Your task to perform on an android device: Open eBay Image 0: 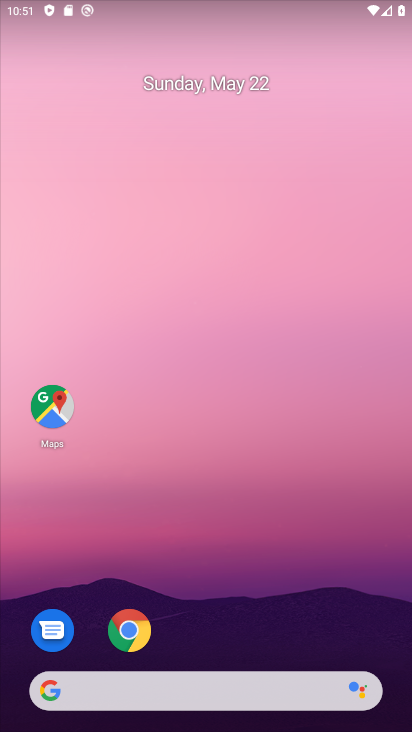
Step 0: drag from (372, 611) to (387, 169)
Your task to perform on an android device: Open eBay Image 1: 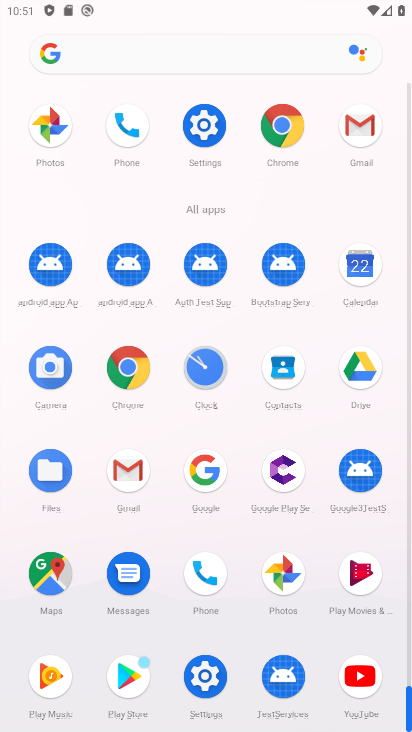
Step 1: click (131, 387)
Your task to perform on an android device: Open eBay Image 2: 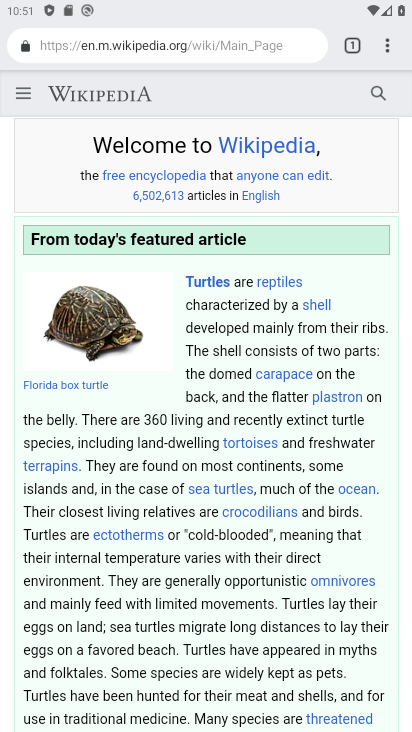
Step 2: press back button
Your task to perform on an android device: Open eBay Image 3: 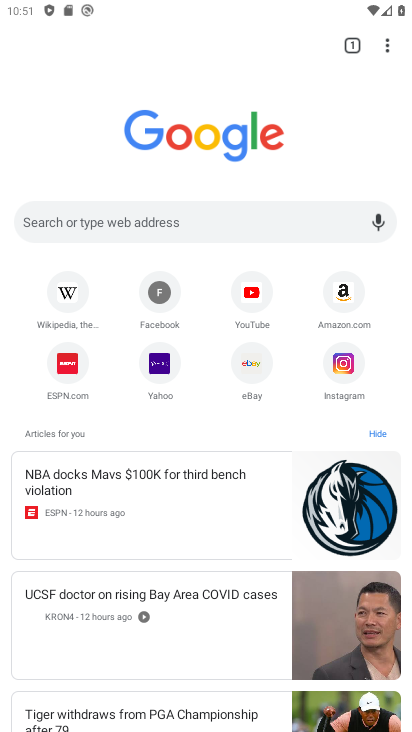
Step 3: click (233, 371)
Your task to perform on an android device: Open eBay Image 4: 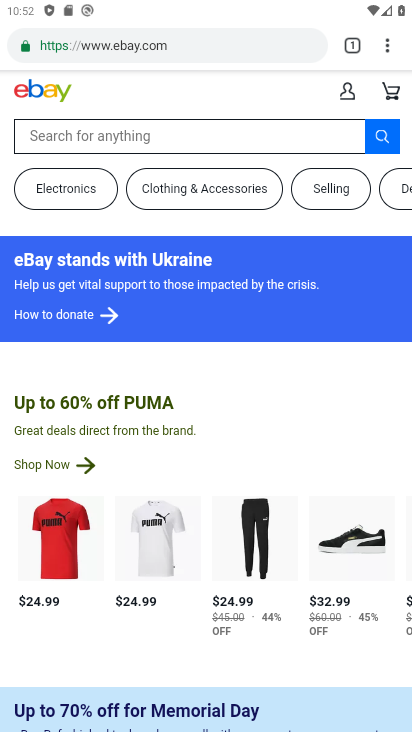
Step 4: task complete